Your task to perform on an android device: Open wifi settings Image 0: 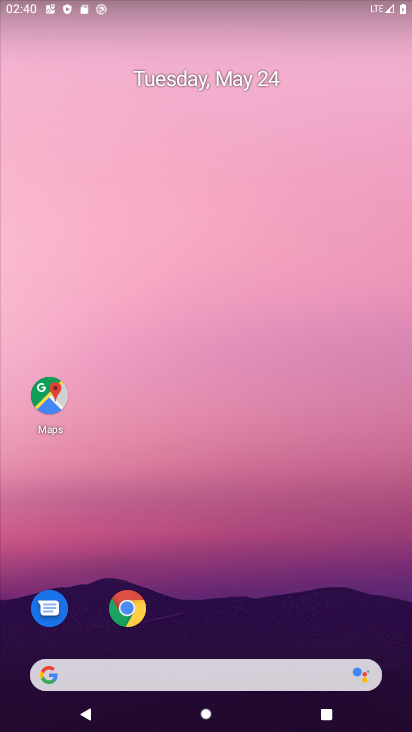
Step 0: drag from (219, 627) to (187, 265)
Your task to perform on an android device: Open wifi settings Image 1: 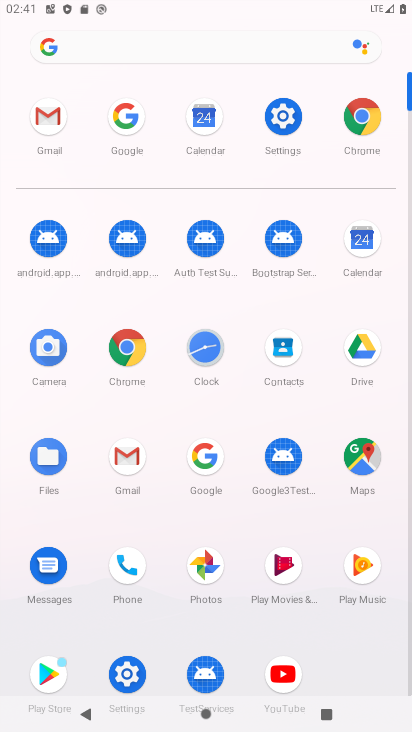
Step 1: click (278, 131)
Your task to perform on an android device: Open wifi settings Image 2: 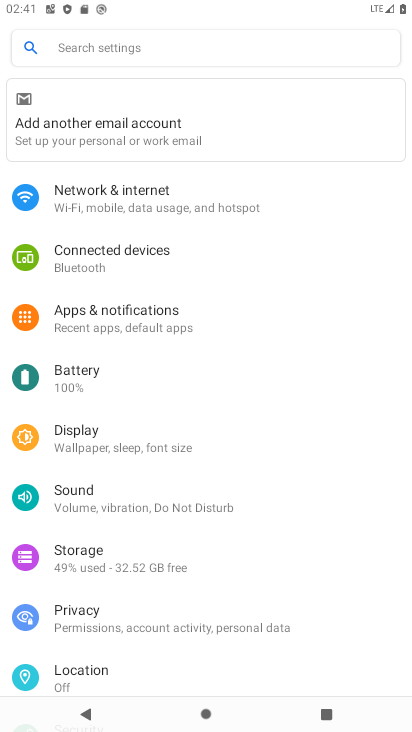
Step 2: click (186, 202)
Your task to perform on an android device: Open wifi settings Image 3: 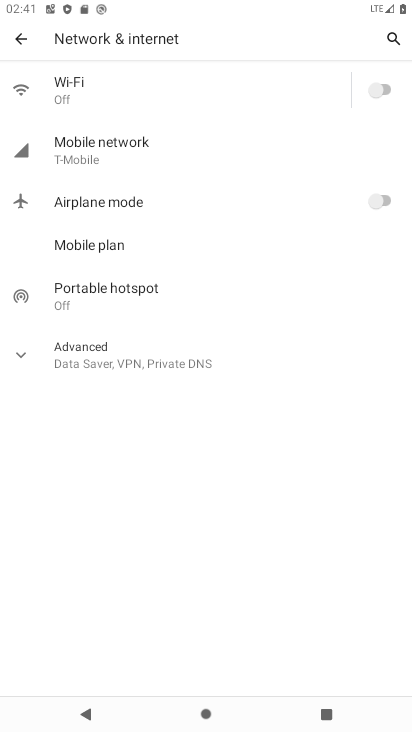
Step 3: click (175, 98)
Your task to perform on an android device: Open wifi settings Image 4: 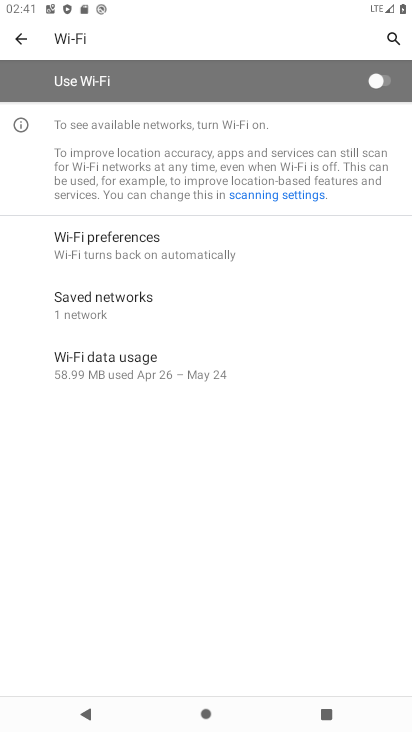
Step 4: task complete